Your task to perform on an android device: Show me productivity apps on the Play Store Image 0: 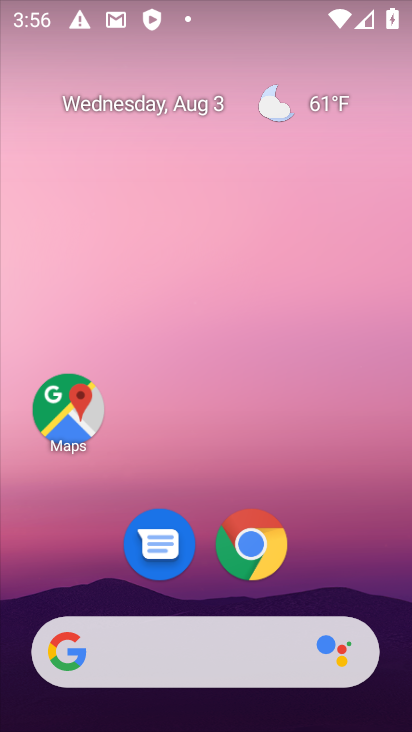
Step 0: drag from (203, 507) to (223, 51)
Your task to perform on an android device: Show me productivity apps on the Play Store Image 1: 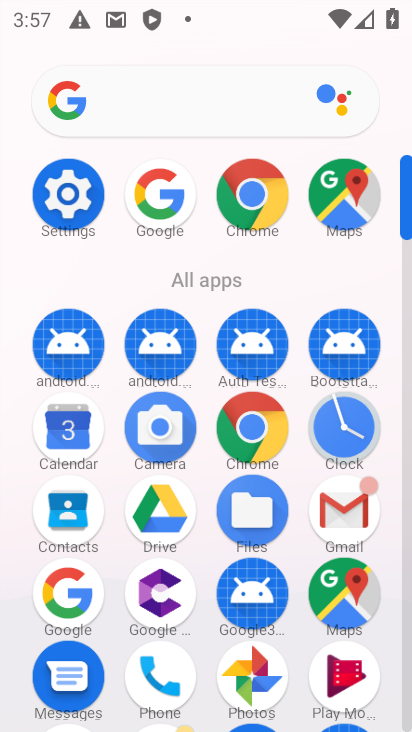
Step 1: drag from (284, 273) to (296, 6)
Your task to perform on an android device: Show me productivity apps on the Play Store Image 2: 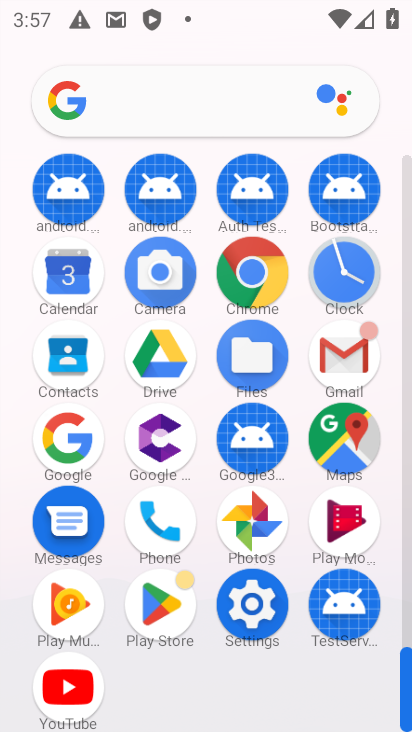
Step 2: click (157, 602)
Your task to perform on an android device: Show me productivity apps on the Play Store Image 3: 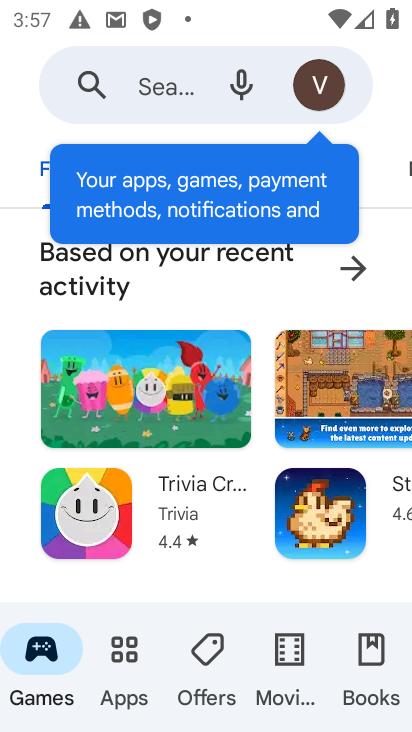
Step 3: click (146, 96)
Your task to perform on an android device: Show me productivity apps on the Play Store Image 4: 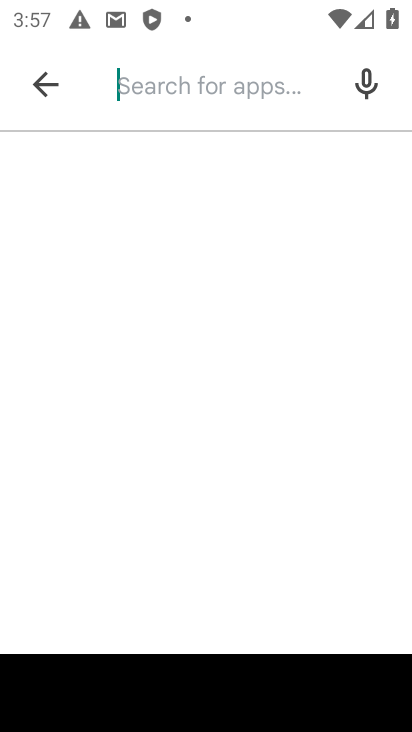
Step 4: type " productivity apps"
Your task to perform on an android device: Show me productivity apps on the Play Store Image 5: 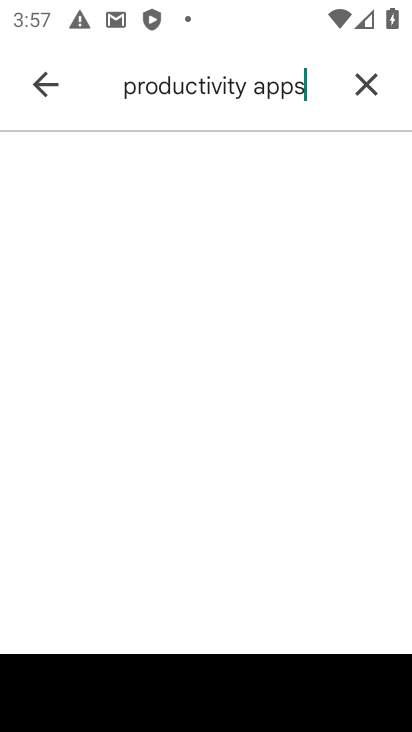
Step 5: type ""
Your task to perform on an android device: Show me productivity apps on the Play Store Image 6: 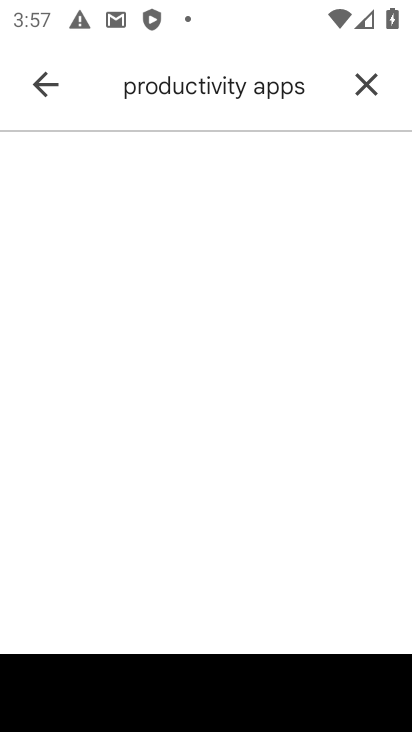
Step 6: task complete